Your task to perform on an android device: clear all cookies in the chrome app Image 0: 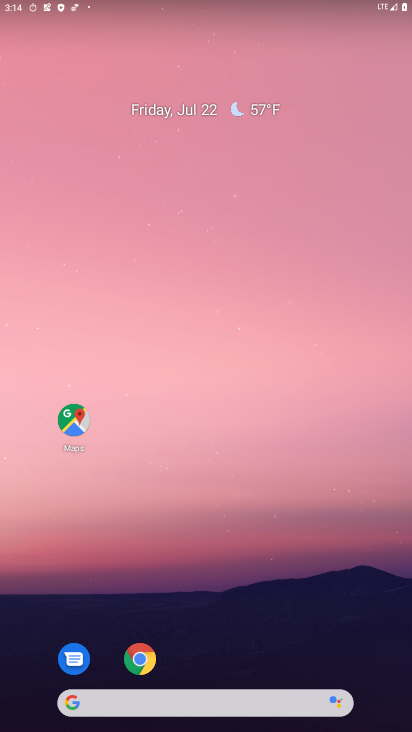
Step 0: click (142, 652)
Your task to perform on an android device: clear all cookies in the chrome app Image 1: 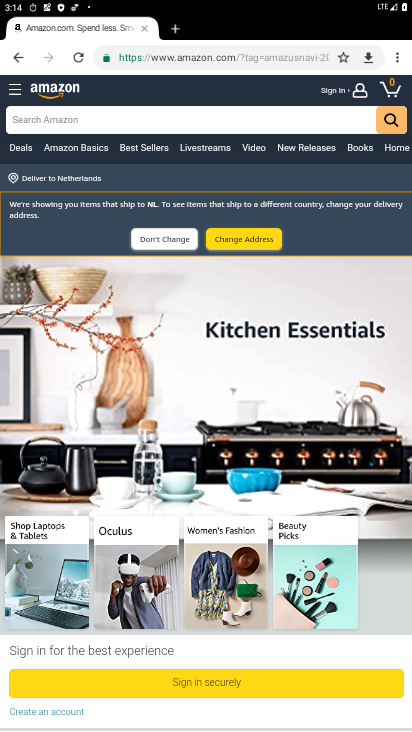
Step 1: click (397, 48)
Your task to perform on an android device: clear all cookies in the chrome app Image 2: 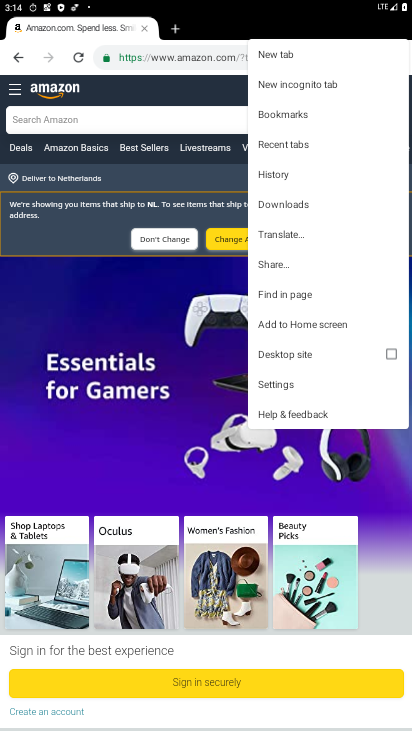
Step 2: click (263, 178)
Your task to perform on an android device: clear all cookies in the chrome app Image 3: 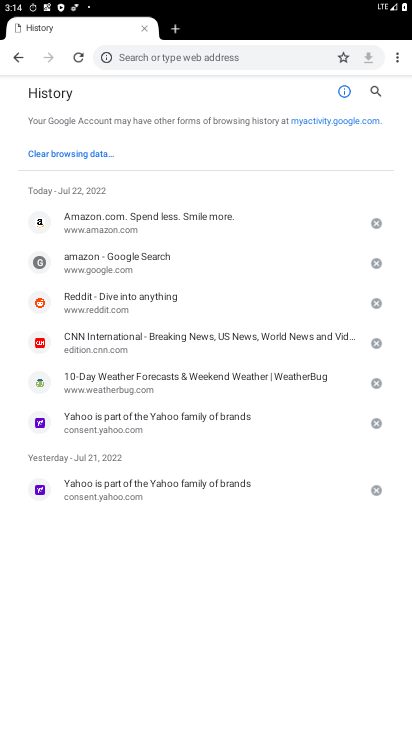
Step 3: click (76, 157)
Your task to perform on an android device: clear all cookies in the chrome app Image 4: 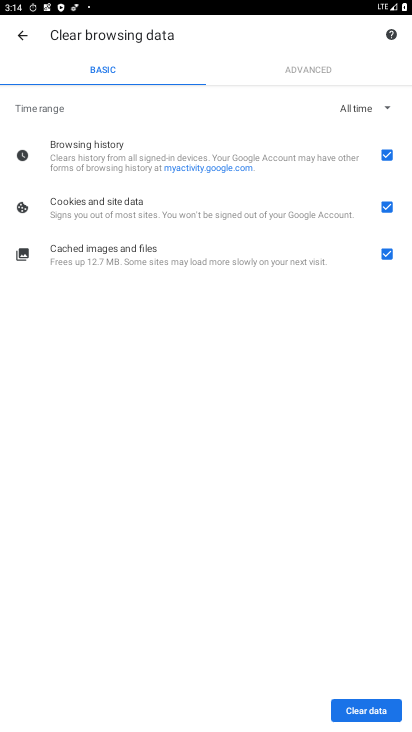
Step 4: click (381, 167)
Your task to perform on an android device: clear all cookies in the chrome app Image 5: 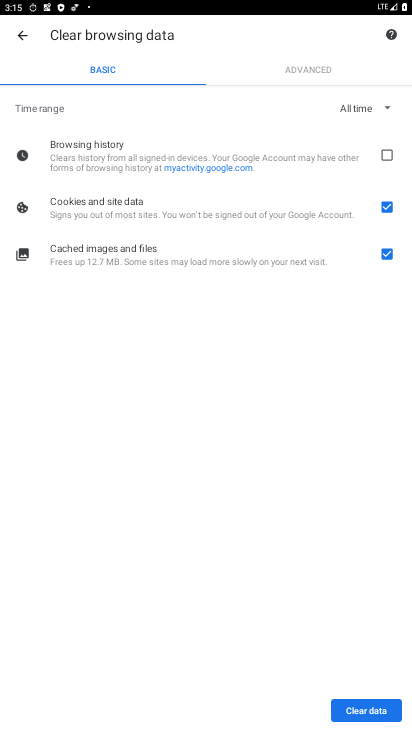
Step 5: click (383, 247)
Your task to perform on an android device: clear all cookies in the chrome app Image 6: 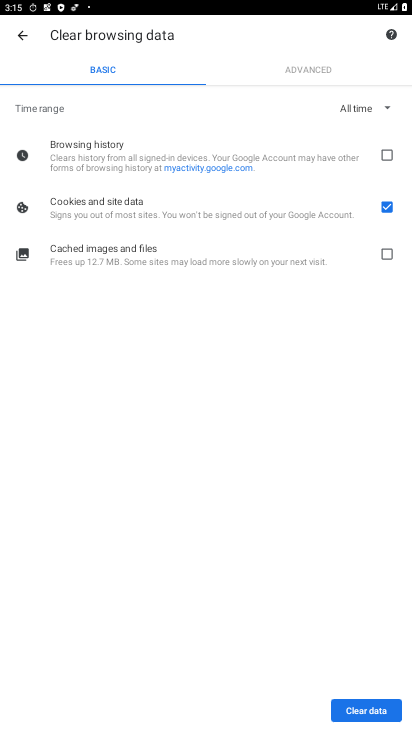
Step 6: click (365, 703)
Your task to perform on an android device: clear all cookies in the chrome app Image 7: 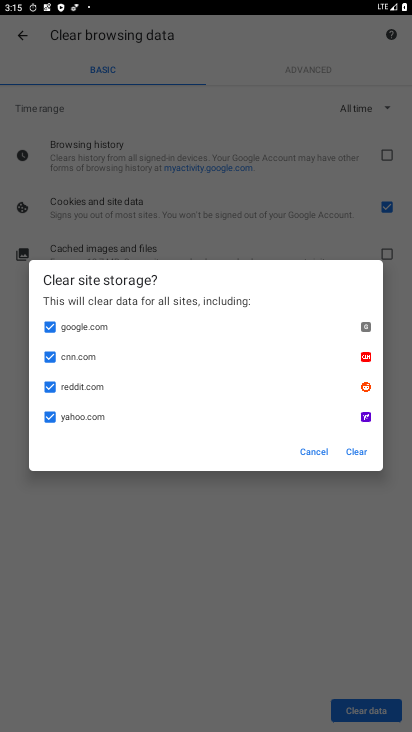
Step 7: click (356, 450)
Your task to perform on an android device: clear all cookies in the chrome app Image 8: 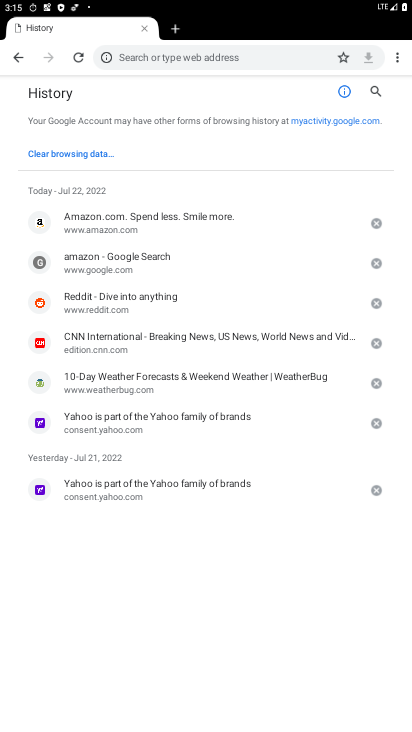
Step 8: task complete